Your task to perform on an android device: open sync settings in chrome Image 0: 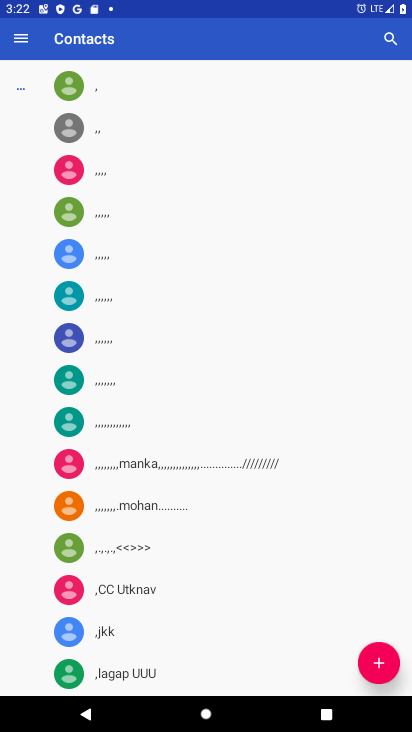
Step 0: press home button
Your task to perform on an android device: open sync settings in chrome Image 1: 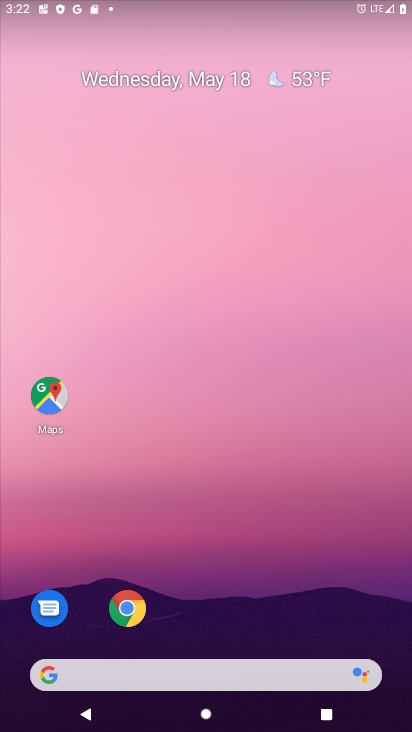
Step 1: click (125, 618)
Your task to perform on an android device: open sync settings in chrome Image 2: 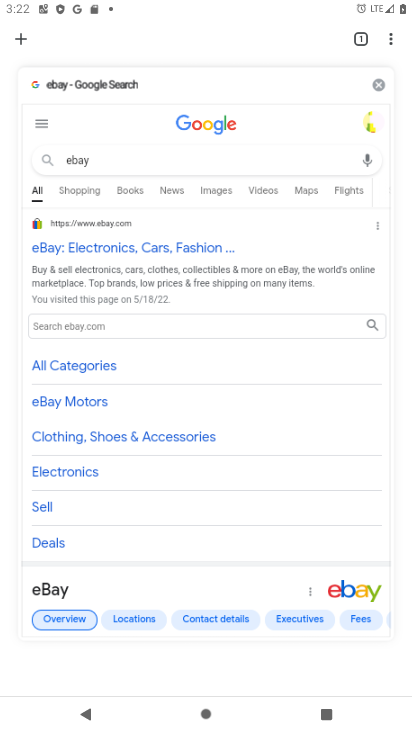
Step 2: click (390, 43)
Your task to perform on an android device: open sync settings in chrome Image 3: 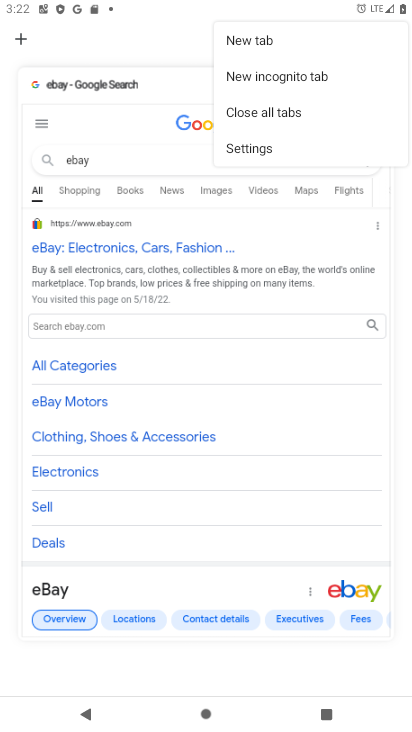
Step 3: click (249, 145)
Your task to perform on an android device: open sync settings in chrome Image 4: 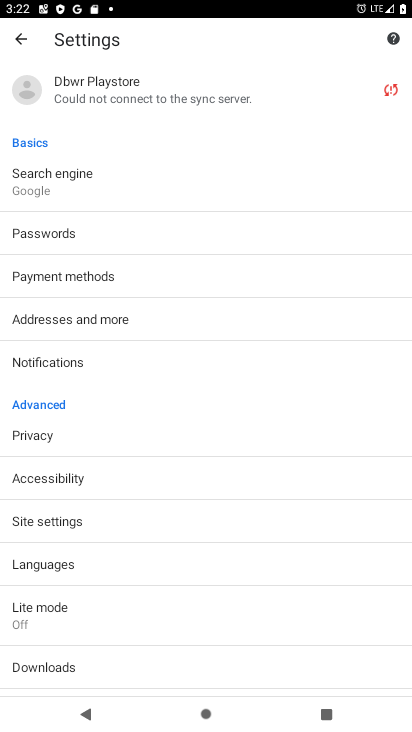
Step 4: click (100, 103)
Your task to perform on an android device: open sync settings in chrome Image 5: 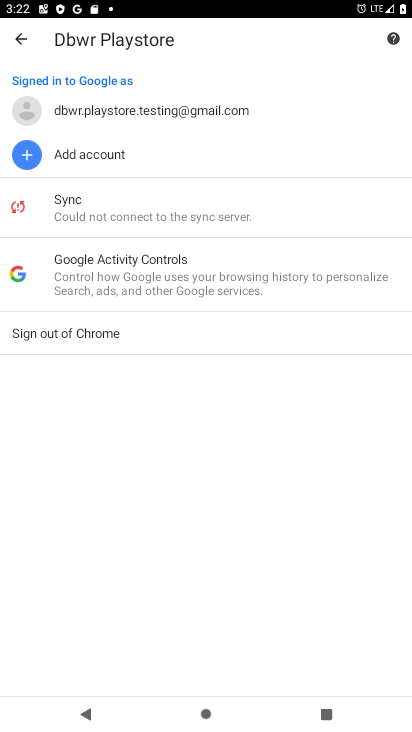
Step 5: click (69, 212)
Your task to perform on an android device: open sync settings in chrome Image 6: 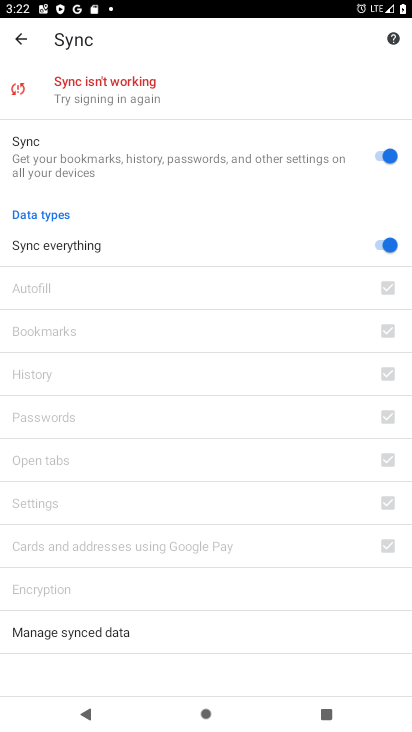
Step 6: task complete